Your task to perform on an android device: stop showing notifications on the lock screen Image 0: 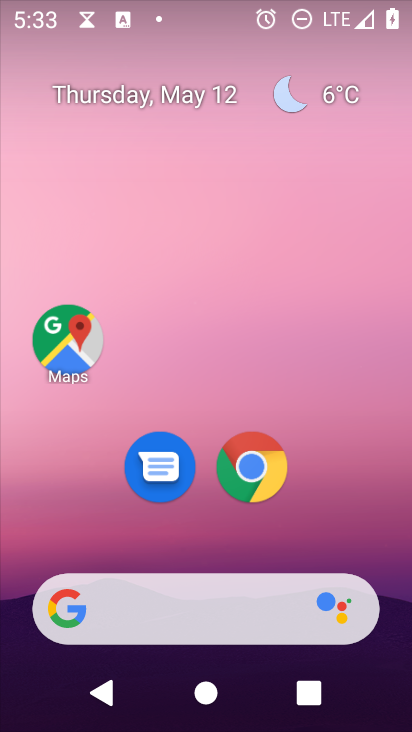
Step 0: drag from (305, 593) to (231, 188)
Your task to perform on an android device: stop showing notifications on the lock screen Image 1: 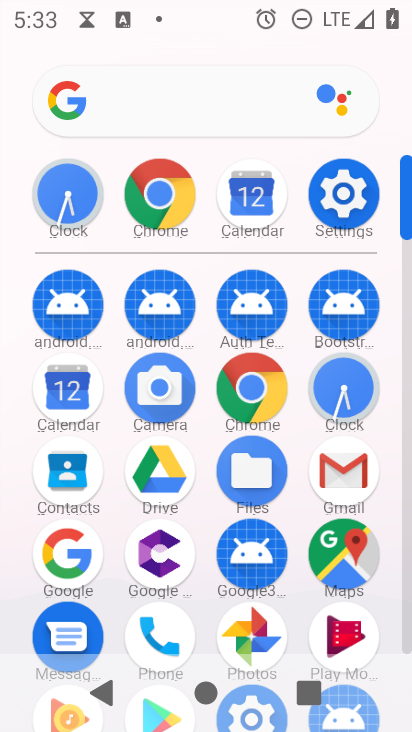
Step 1: click (328, 218)
Your task to perform on an android device: stop showing notifications on the lock screen Image 2: 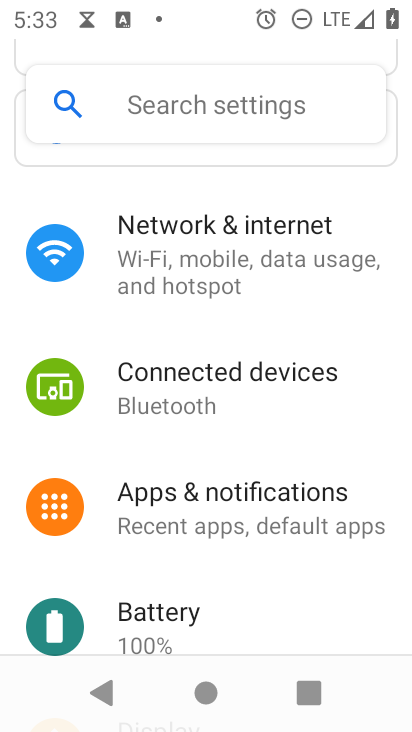
Step 2: click (248, 492)
Your task to perform on an android device: stop showing notifications on the lock screen Image 3: 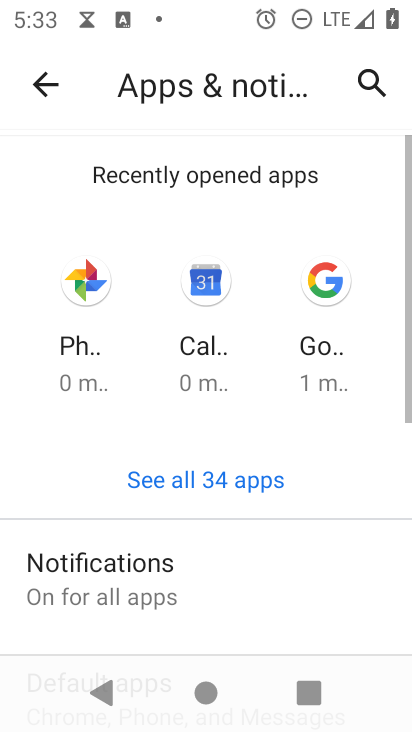
Step 3: drag from (243, 592) to (247, 131)
Your task to perform on an android device: stop showing notifications on the lock screen Image 4: 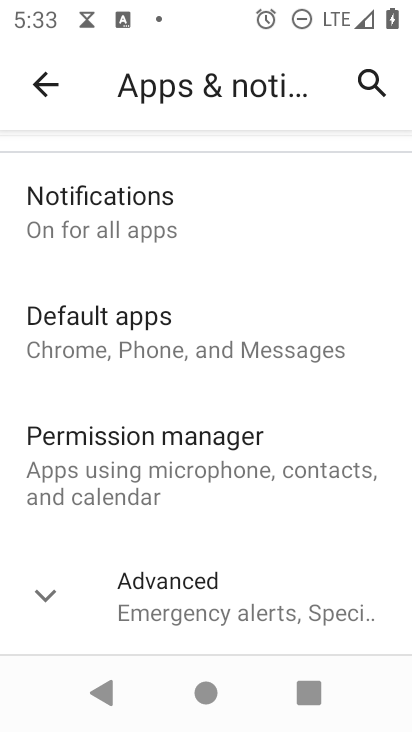
Step 4: click (158, 197)
Your task to perform on an android device: stop showing notifications on the lock screen Image 5: 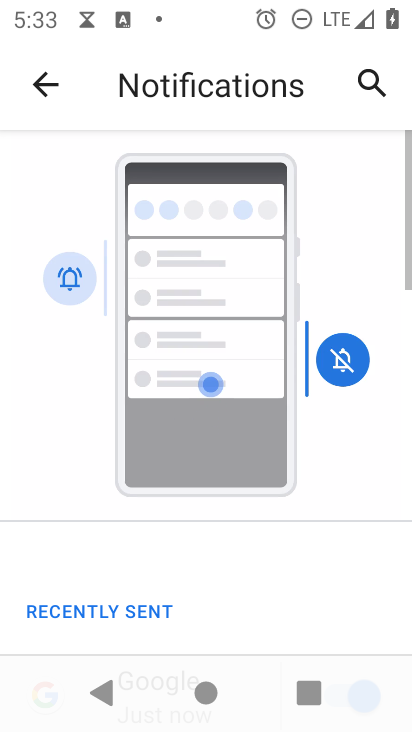
Step 5: drag from (268, 607) to (351, 57)
Your task to perform on an android device: stop showing notifications on the lock screen Image 6: 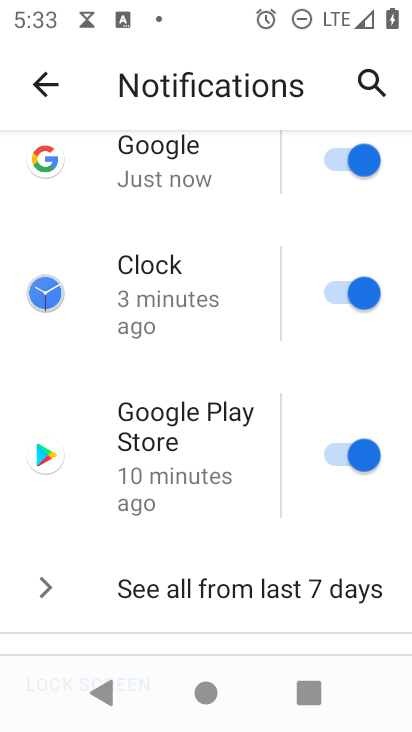
Step 6: drag from (255, 638) to (301, 308)
Your task to perform on an android device: stop showing notifications on the lock screen Image 7: 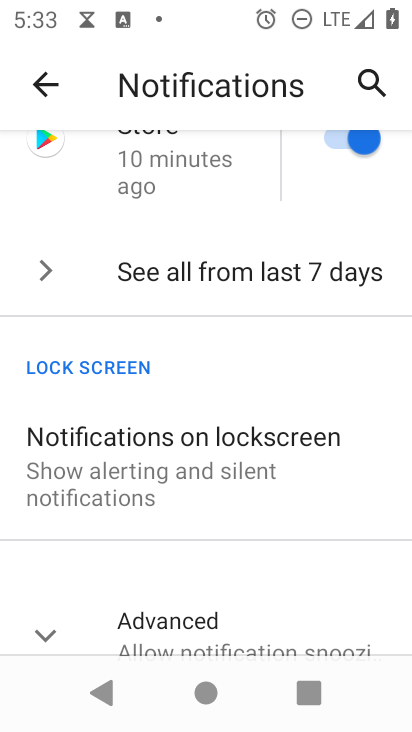
Step 7: click (240, 480)
Your task to perform on an android device: stop showing notifications on the lock screen Image 8: 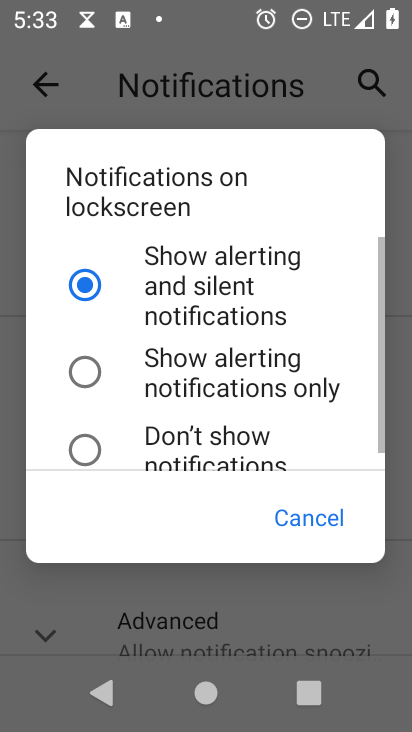
Step 8: click (206, 429)
Your task to perform on an android device: stop showing notifications on the lock screen Image 9: 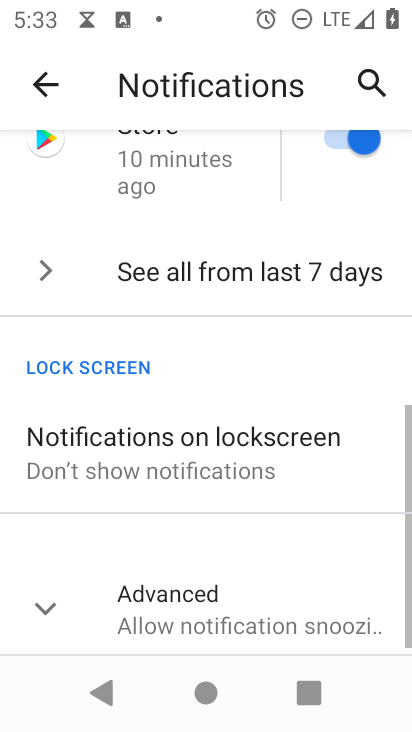
Step 9: task complete